Your task to perform on an android device: open app "Adobe Express: Graphic Design" (install if not already installed) Image 0: 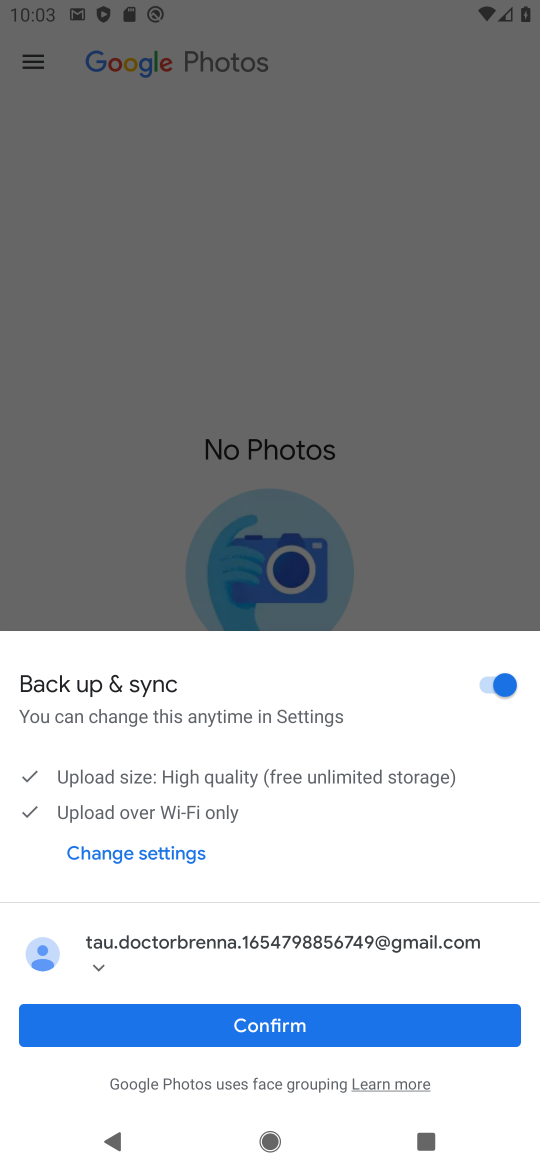
Step 0: press back button
Your task to perform on an android device: open app "Adobe Express: Graphic Design" (install if not already installed) Image 1: 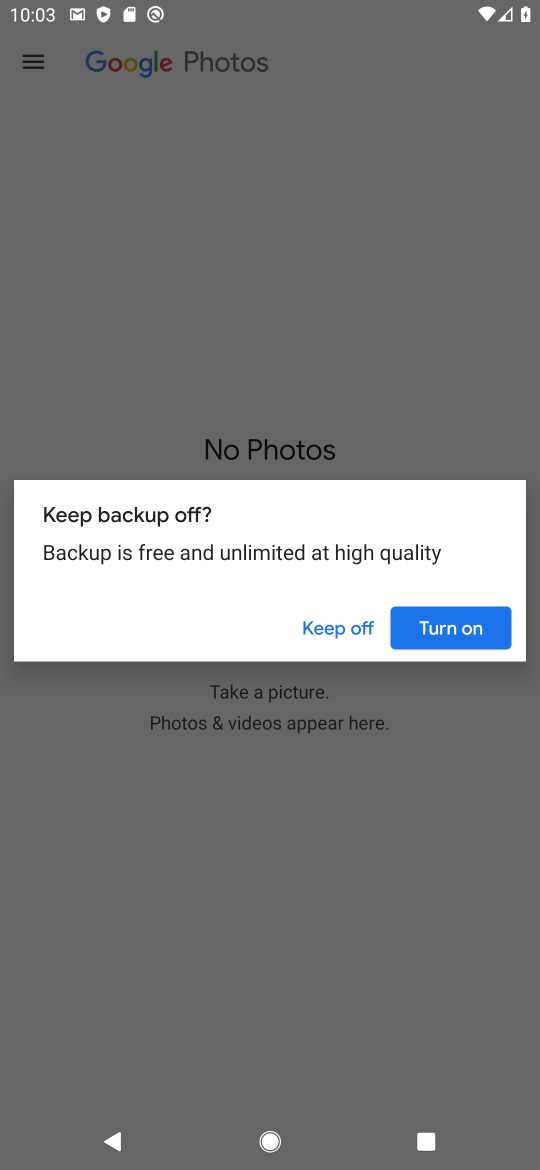
Step 1: press home button
Your task to perform on an android device: open app "Adobe Express: Graphic Design" (install if not already installed) Image 2: 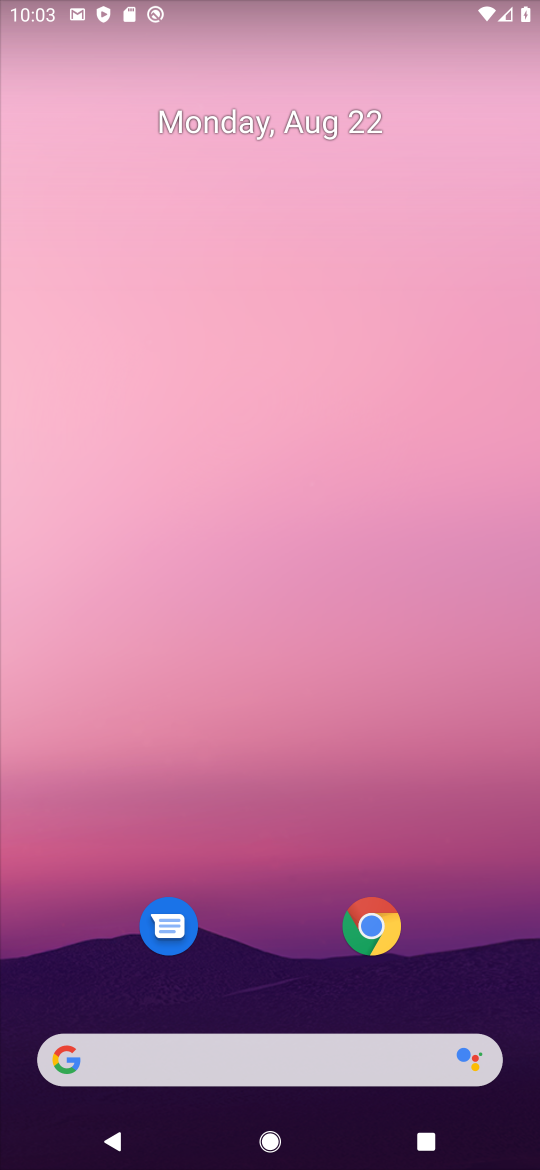
Step 2: drag from (206, 1092) to (522, 48)
Your task to perform on an android device: open app "Adobe Express: Graphic Design" (install if not already installed) Image 3: 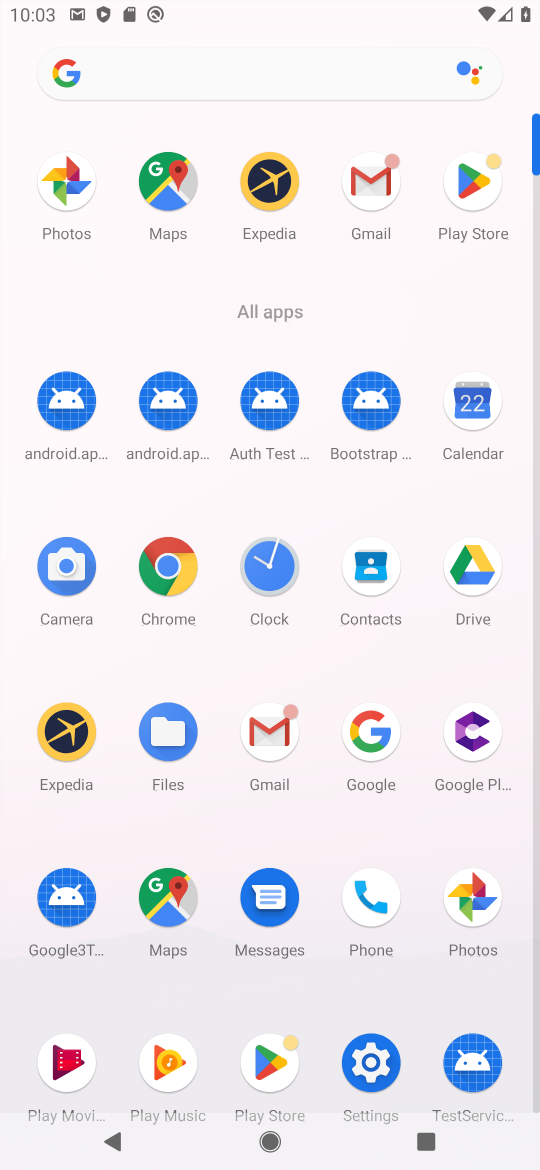
Step 3: click (447, 185)
Your task to perform on an android device: open app "Adobe Express: Graphic Design" (install if not already installed) Image 4: 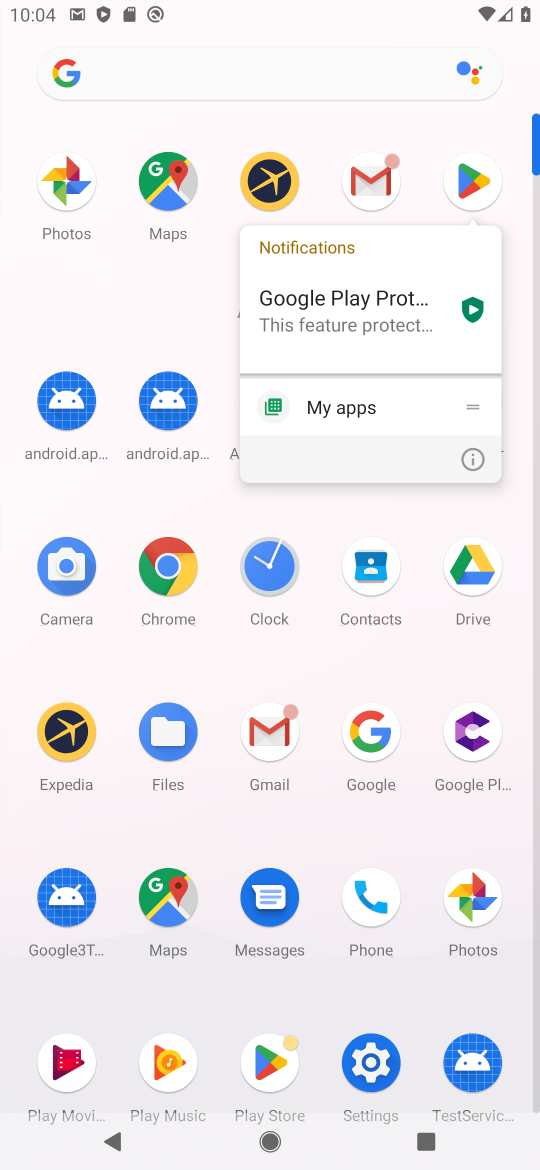
Step 4: click (463, 197)
Your task to perform on an android device: open app "Adobe Express: Graphic Design" (install if not already installed) Image 5: 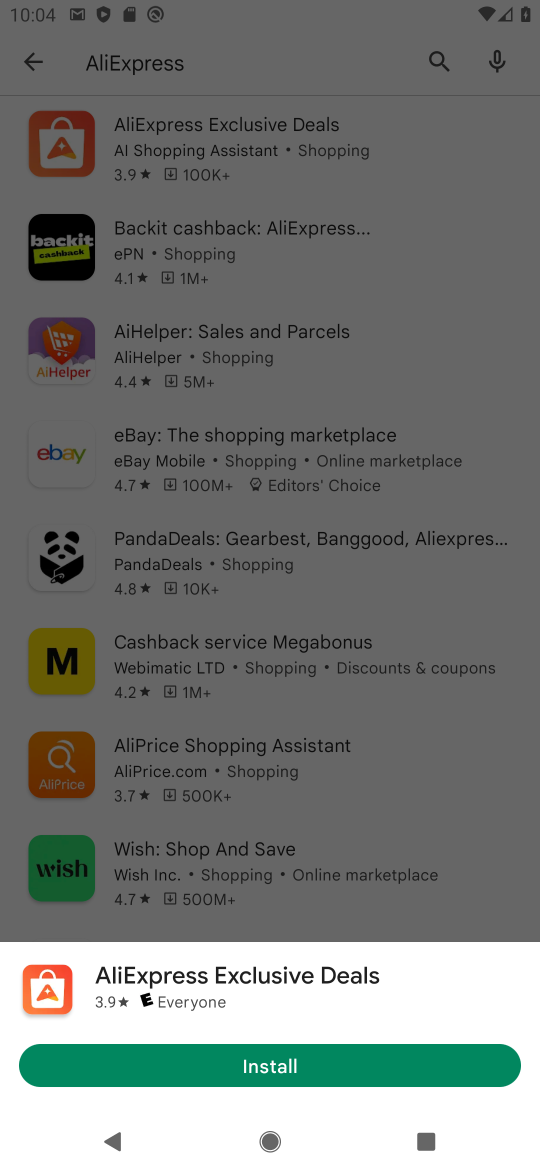
Step 5: press back button
Your task to perform on an android device: open app "Adobe Express: Graphic Design" (install if not already installed) Image 6: 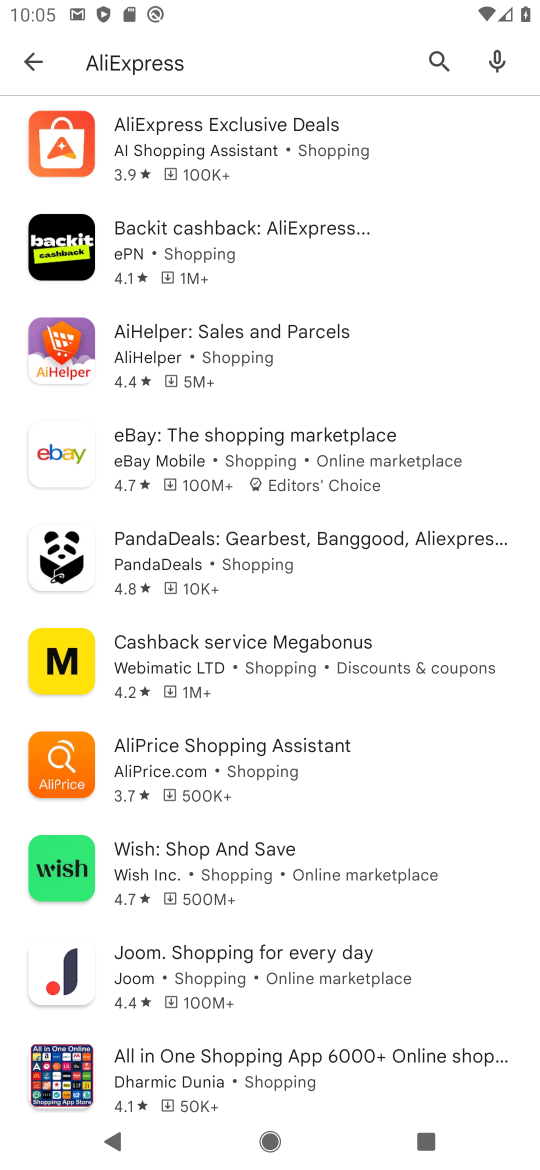
Step 6: click (293, 144)
Your task to perform on an android device: open app "Adobe Express: Graphic Design" (install if not already installed) Image 7: 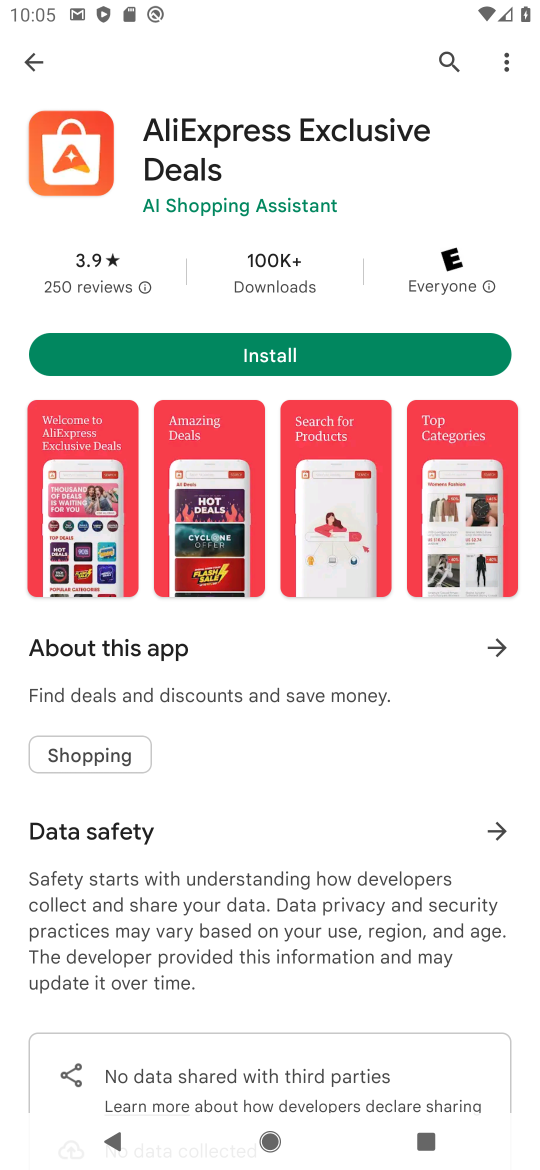
Step 7: click (242, 360)
Your task to perform on an android device: open app "Adobe Express: Graphic Design" (install if not already installed) Image 8: 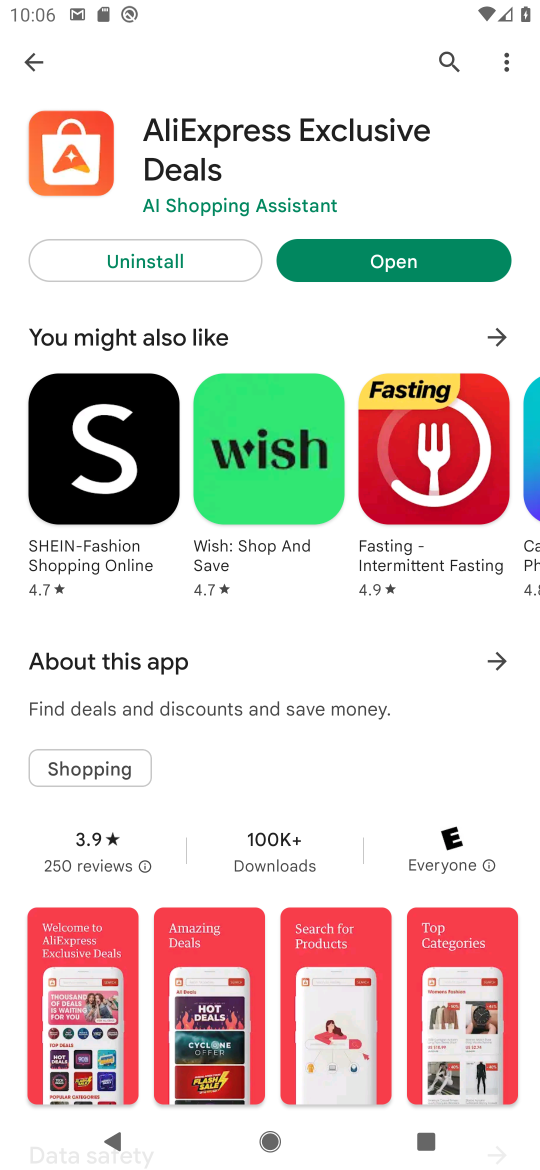
Step 8: click (410, 286)
Your task to perform on an android device: open app "Adobe Express: Graphic Design" (install if not already installed) Image 9: 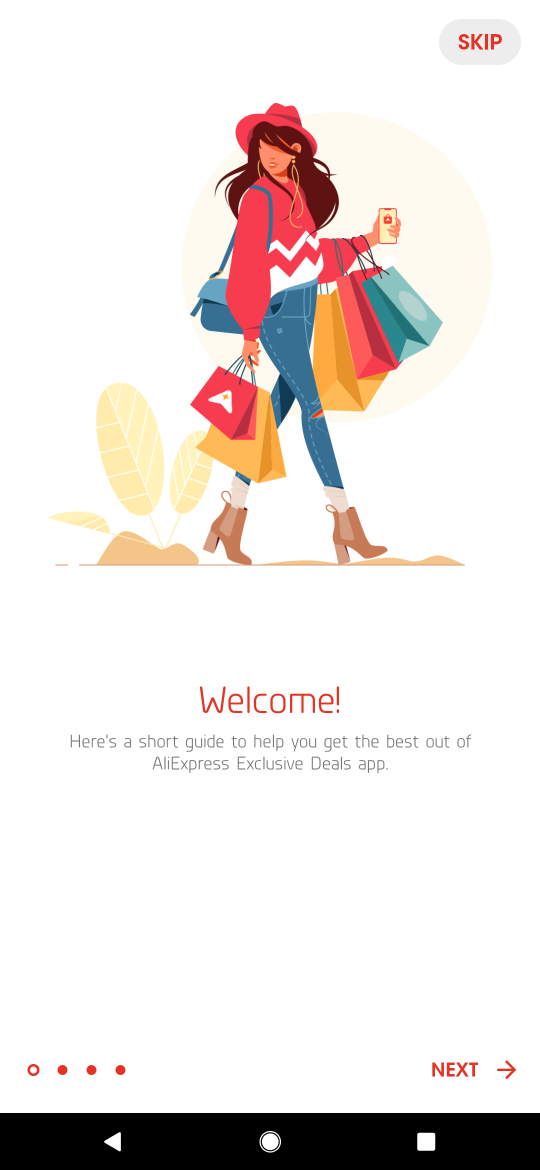
Step 9: task complete